Your task to perform on an android device: turn on wifi Image 0: 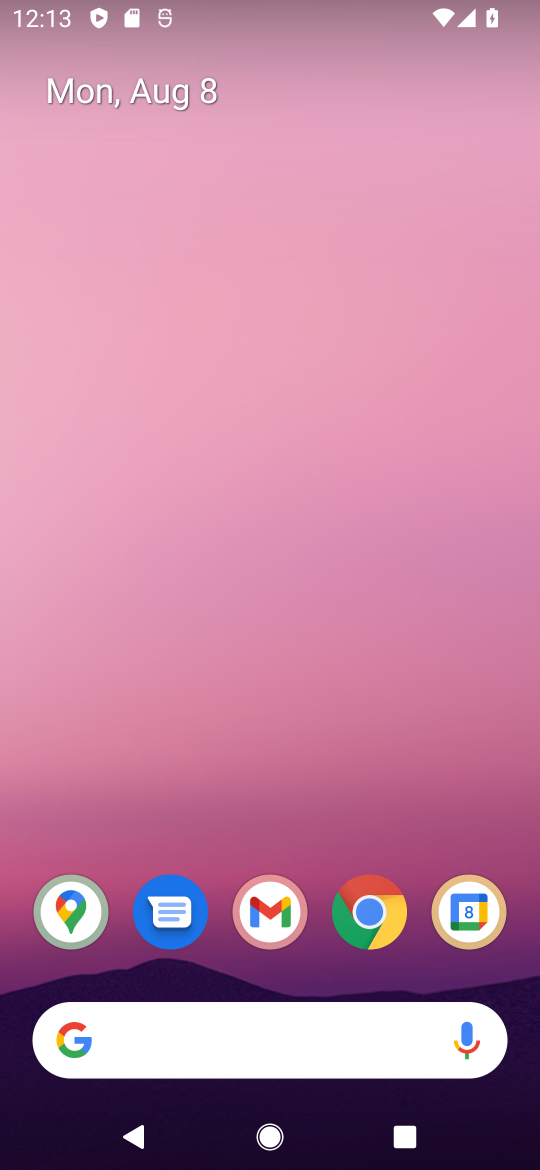
Step 0: drag from (189, 12) to (278, 859)
Your task to perform on an android device: turn on wifi Image 1: 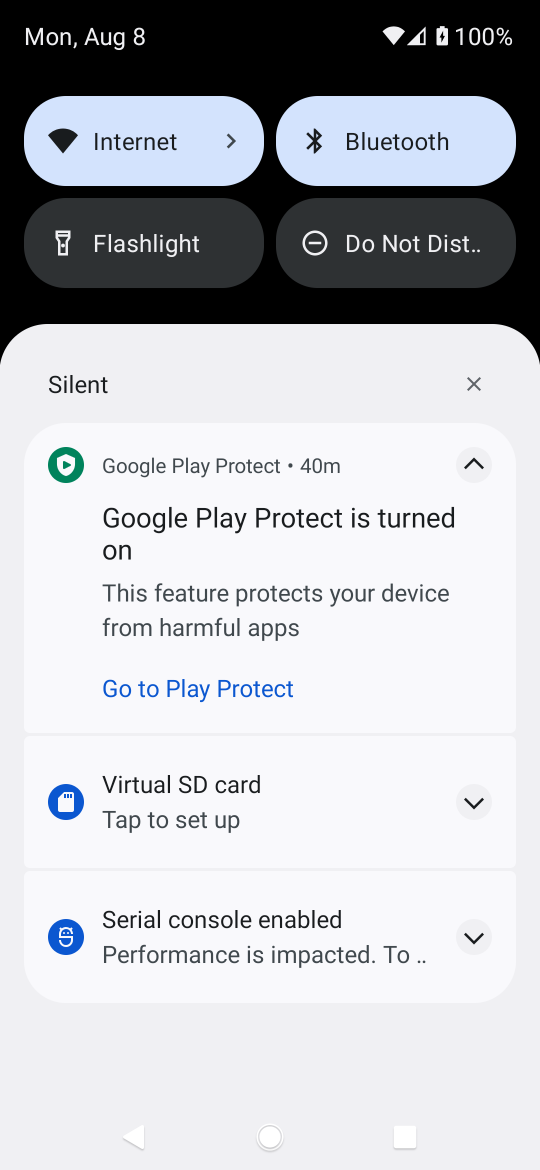
Step 1: task complete